Your task to perform on an android device: open app "Google Play services" Image 0: 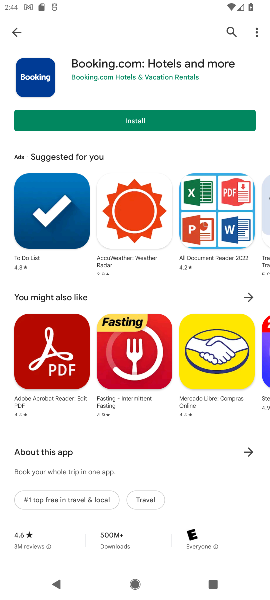
Step 0: press home button
Your task to perform on an android device: open app "Google Play services" Image 1: 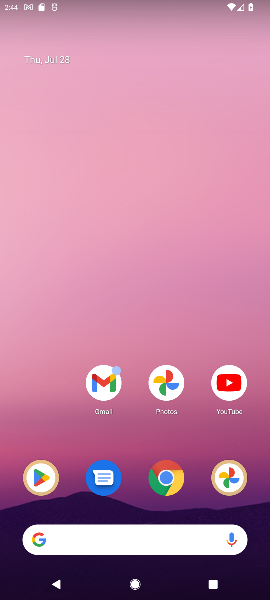
Step 1: drag from (136, 325) to (123, 9)
Your task to perform on an android device: open app "Google Play services" Image 2: 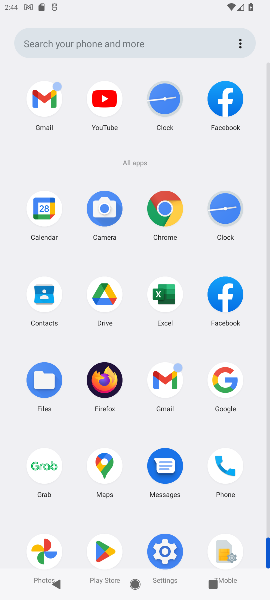
Step 2: click (106, 564)
Your task to perform on an android device: open app "Google Play services" Image 3: 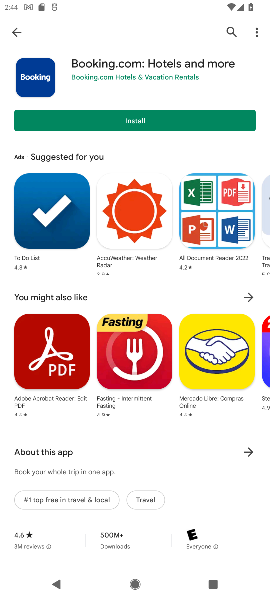
Step 3: click (11, 28)
Your task to perform on an android device: open app "Google Play services" Image 4: 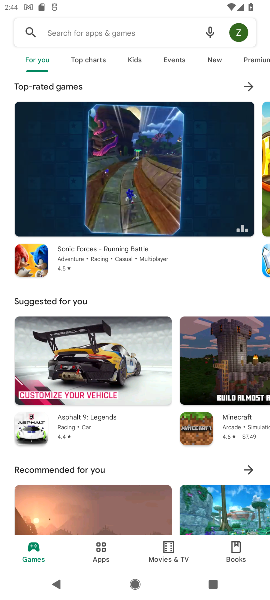
Step 4: click (73, 31)
Your task to perform on an android device: open app "Google Play services" Image 5: 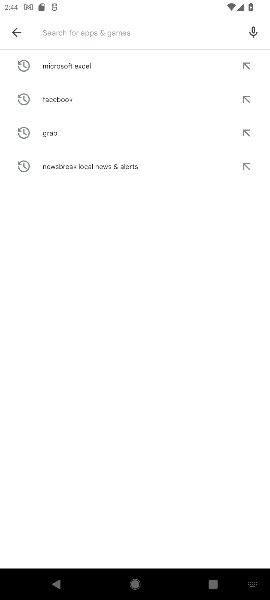
Step 5: type "Google Play services"
Your task to perform on an android device: open app "Google Play services" Image 6: 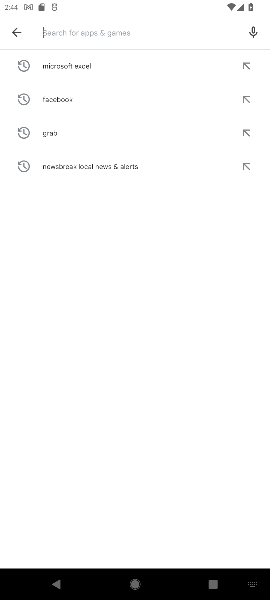
Step 6: click (84, 29)
Your task to perform on an android device: open app "Google Play services" Image 7: 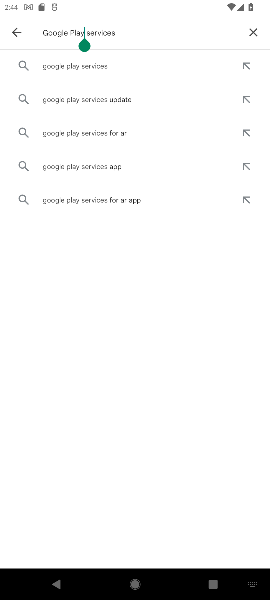
Step 7: click (95, 68)
Your task to perform on an android device: open app "Google Play services" Image 8: 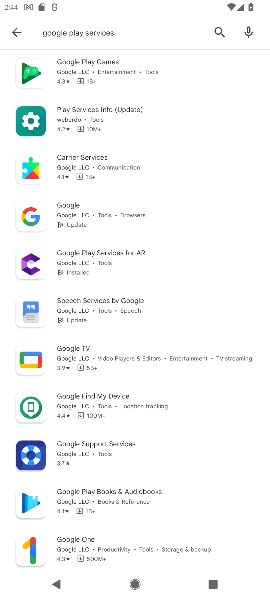
Step 8: click (97, 265)
Your task to perform on an android device: open app "Google Play services" Image 9: 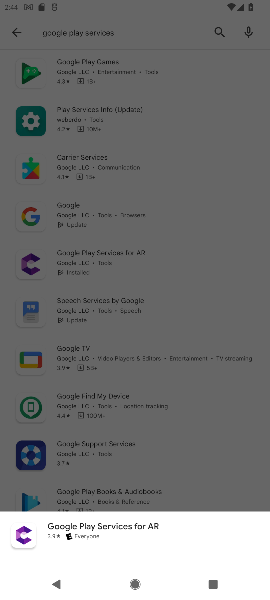
Step 9: click (113, 529)
Your task to perform on an android device: open app "Google Play services" Image 10: 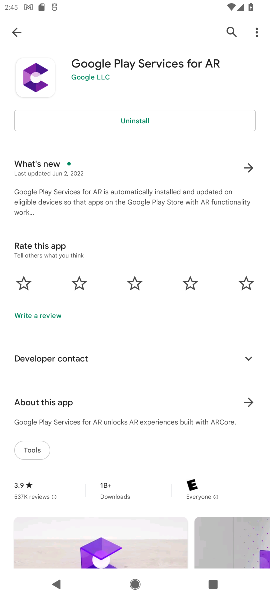
Step 10: click (179, 65)
Your task to perform on an android device: open app "Google Play services" Image 11: 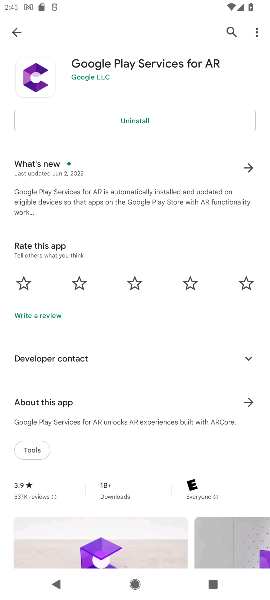
Step 11: click (245, 179)
Your task to perform on an android device: open app "Google Play services" Image 12: 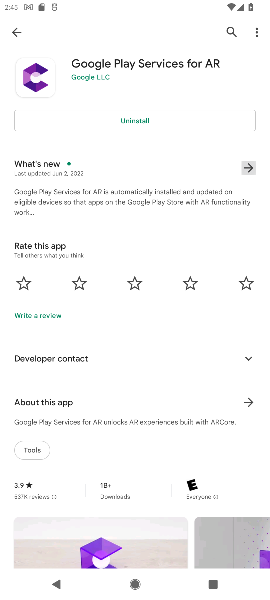
Step 12: click (254, 164)
Your task to perform on an android device: open app "Google Play services" Image 13: 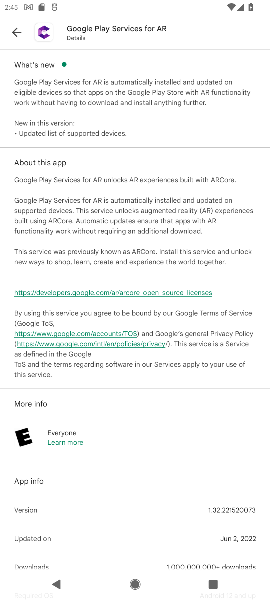
Step 13: click (12, 31)
Your task to perform on an android device: open app "Google Play services" Image 14: 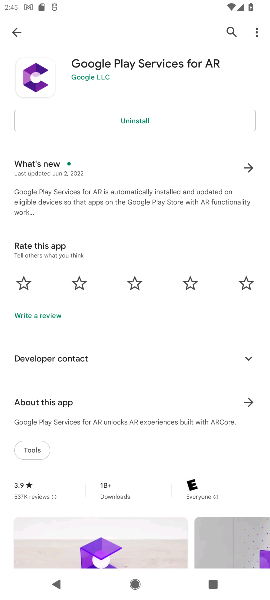
Step 14: task complete